Your task to perform on an android device: Open the map Image 0: 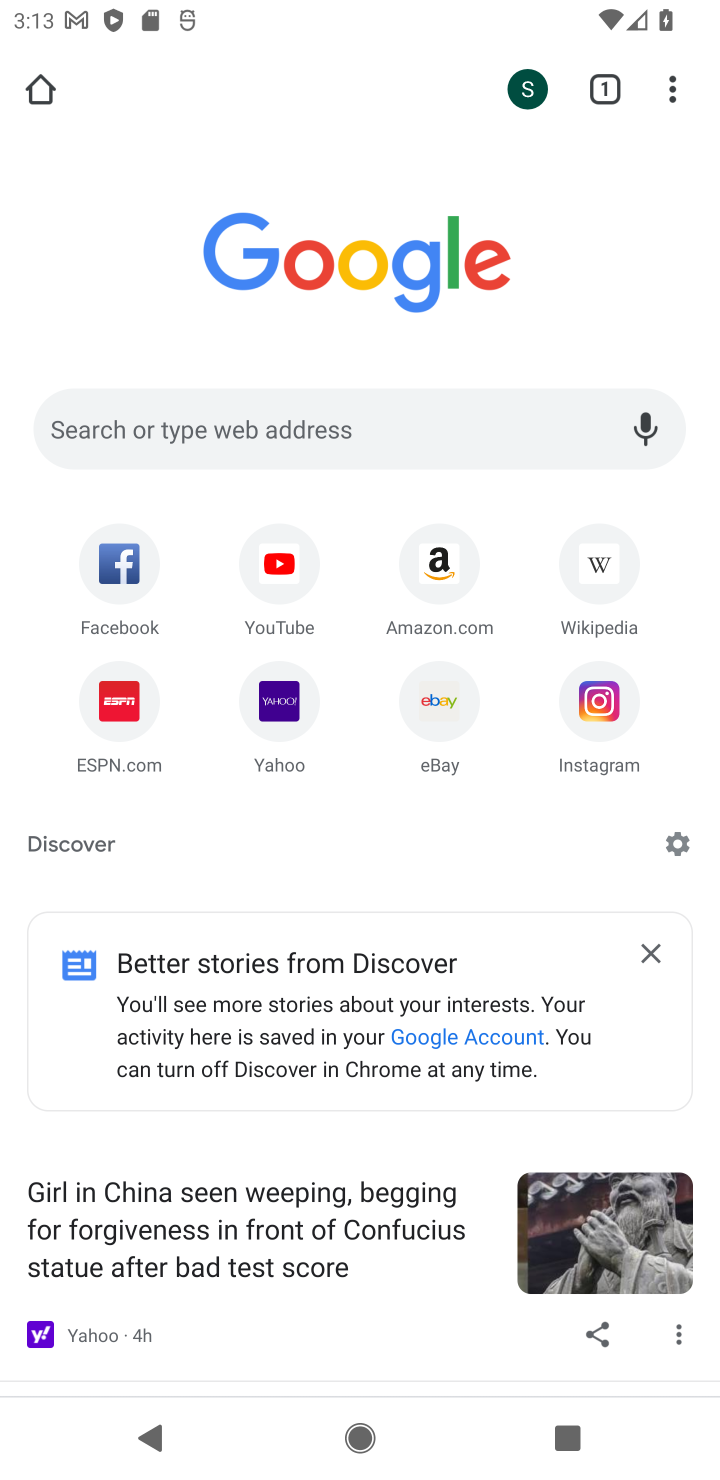
Step 0: press home button
Your task to perform on an android device: Open the map Image 1: 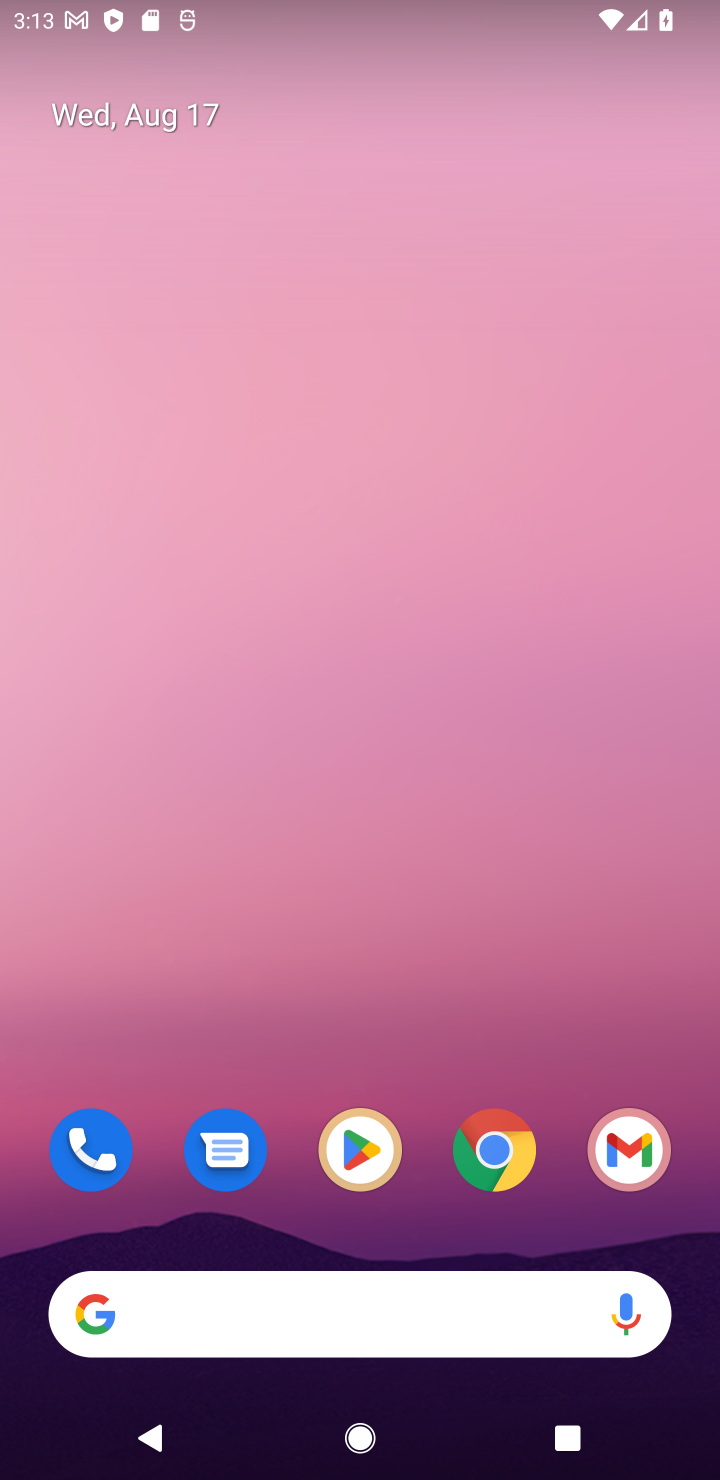
Step 1: drag from (558, 1122) to (363, 154)
Your task to perform on an android device: Open the map Image 2: 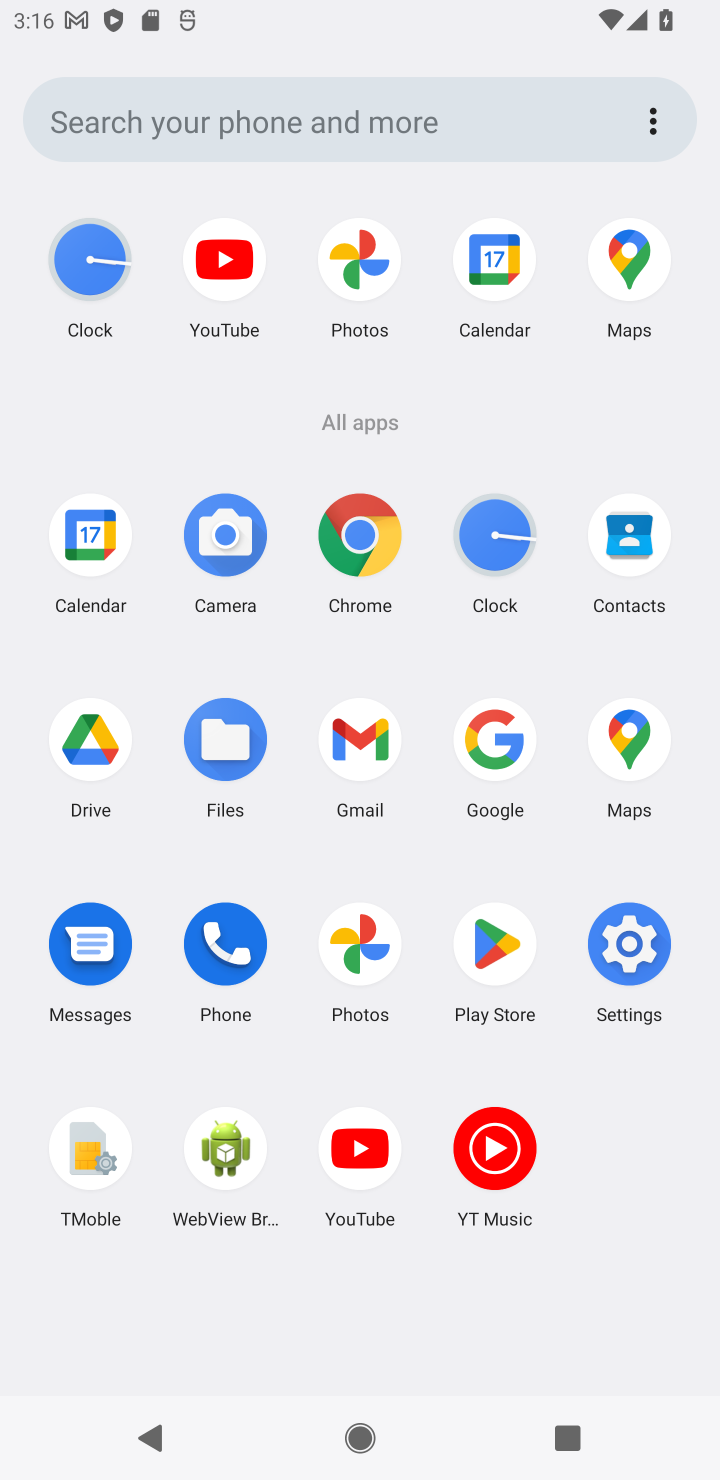
Step 2: click (643, 728)
Your task to perform on an android device: Open the map Image 3: 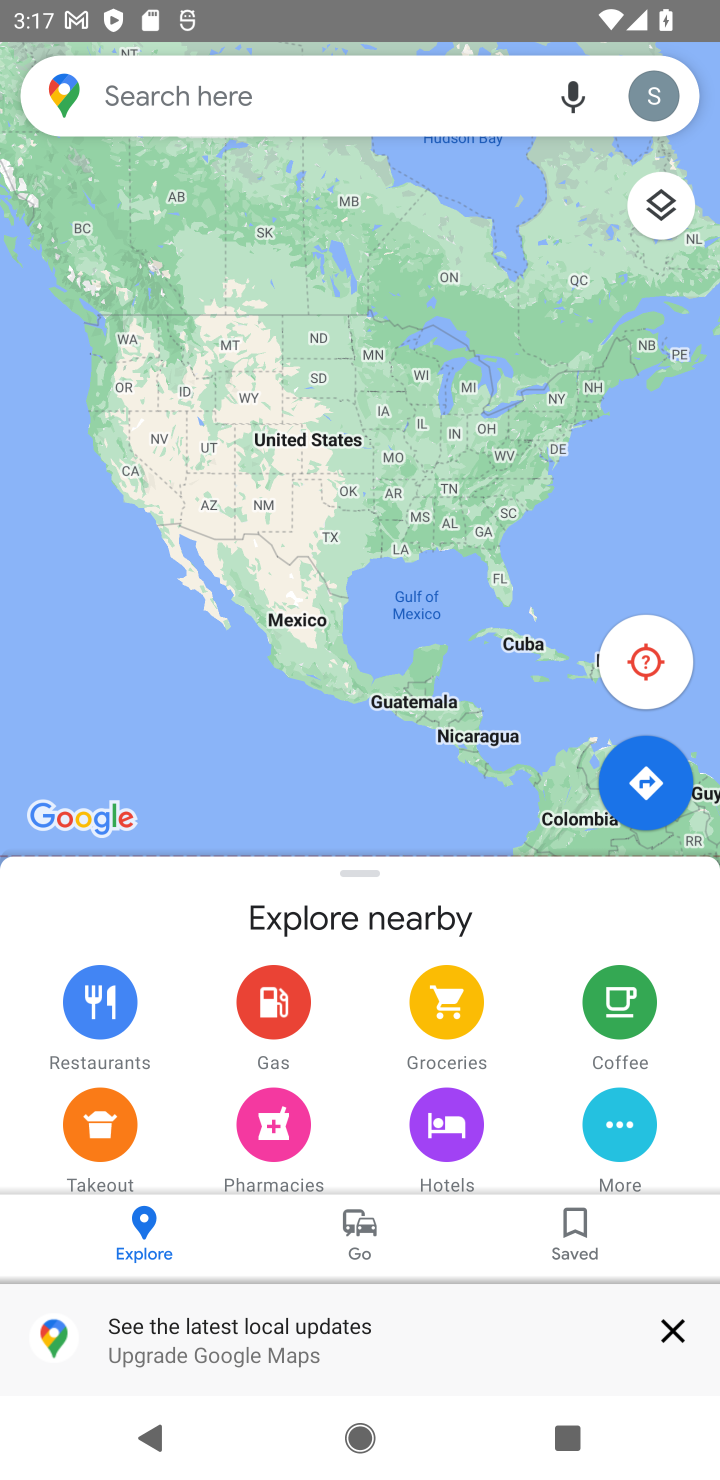
Step 3: task complete